Your task to perform on an android device: What is the speed of a train? Image 0: 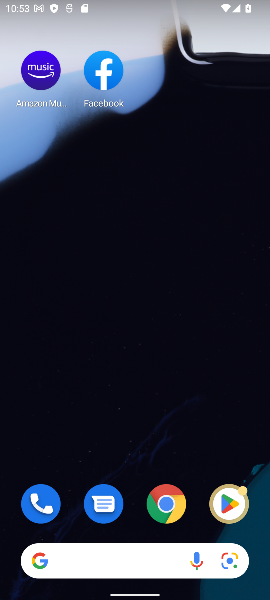
Step 0: click (166, 508)
Your task to perform on an android device: What is the speed of a train? Image 1: 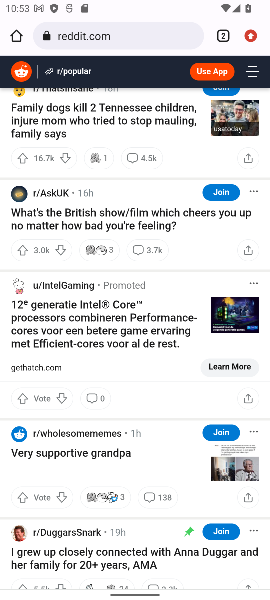
Step 1: click (113, 29)
Your task to perform on an android device: What is the speed of a train? Image 2: 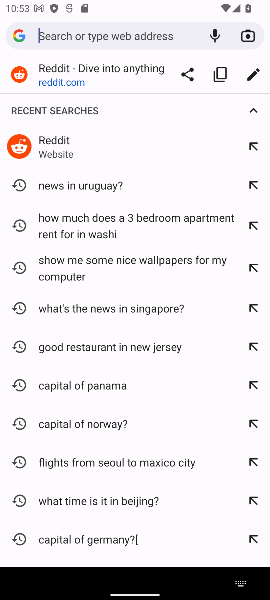
Step 2: type "speed of train"
Your task to perform on an android device: What is the speed of a train? Image 3: 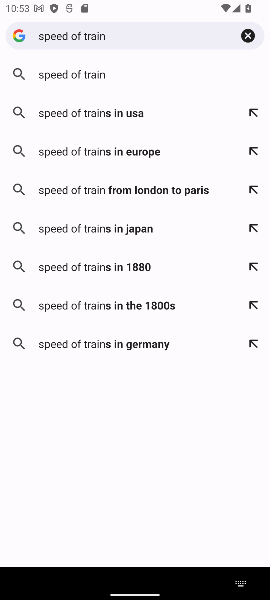
Step 3: click (79, 76)
Your task to perform on an android device: What is the speed of a train? Image 4: 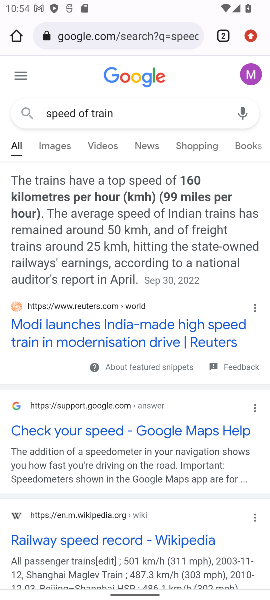
Step 4: task complete